Your task to perform on an android device: turn on airplane mode Image 0: 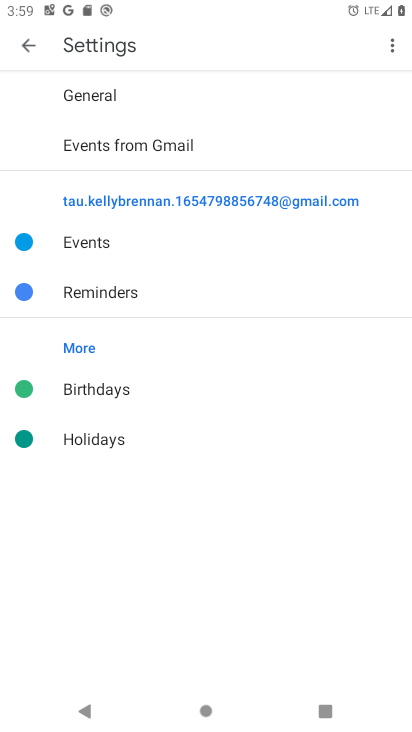
Step 0: press home button
Your task to perform on an android device: turn on airplane mode Image 1: 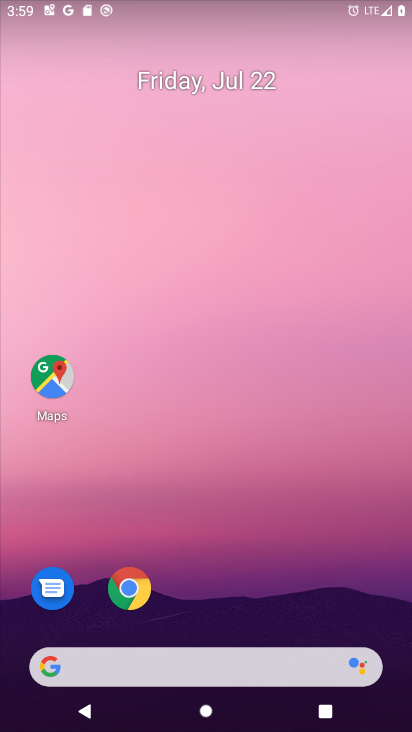
Step 1: drag from (312, 3) to (281, 477)
Your task to perform on an android device: turn on airplane mode Image 2: 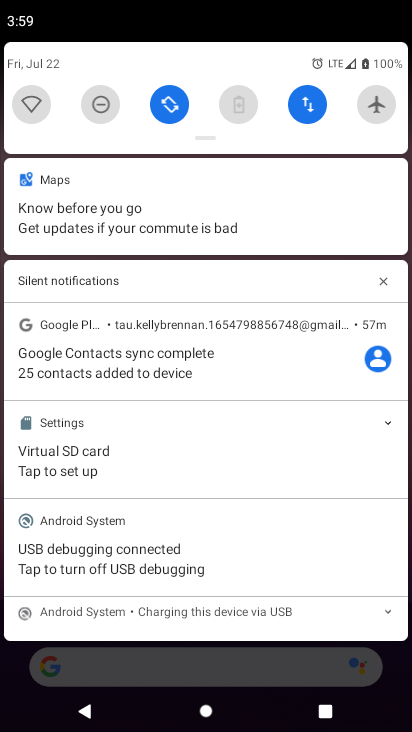
Step 2: click (376, 100)
Your task to perform on an android device: turn on airplane mode Image 3: 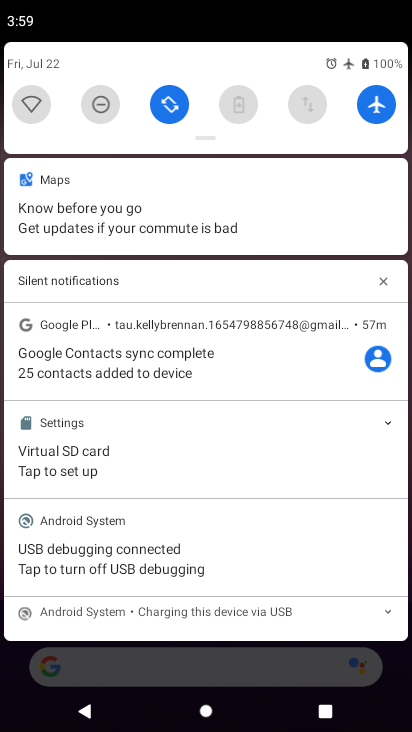
Step 3: task complete